Your task to perform on an android device: See recent photos Image 0: 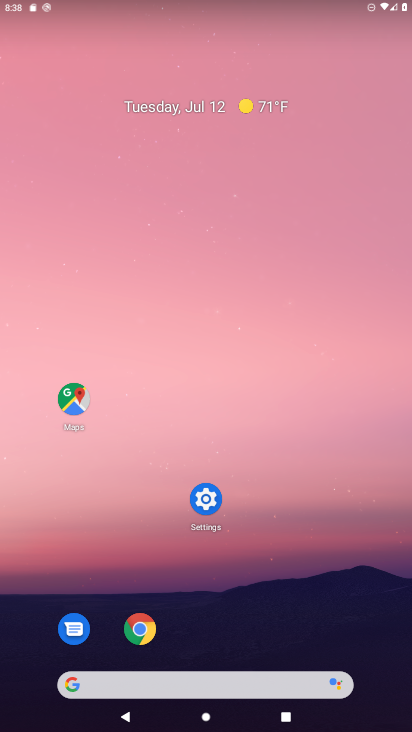
Step 0: drag from (367, 661) to (286, 89)
Your task to perform on an android device: See recent photos Image 1: 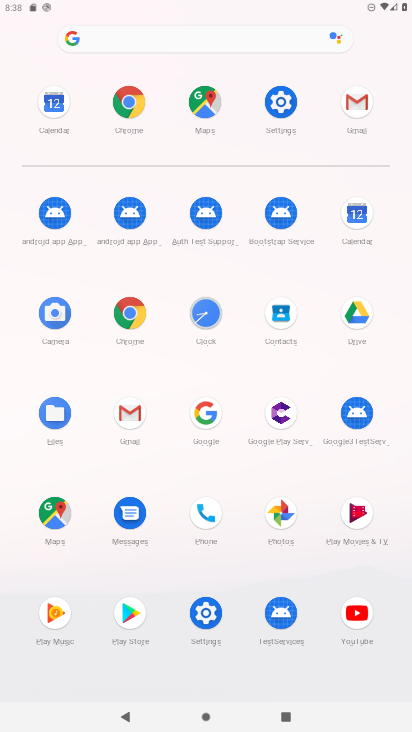
Step 1: click (276, 509)
Your task to perform on an android device: See recent photos Image 2: 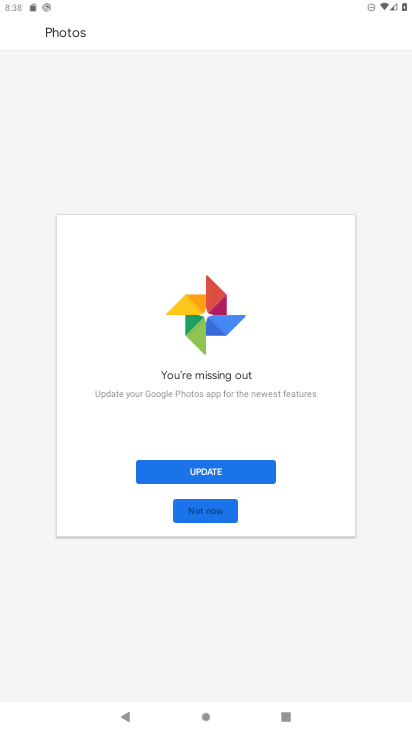
Step 2: click (252, 470)
Your task to perform on an android device: See recent photos Image 3: 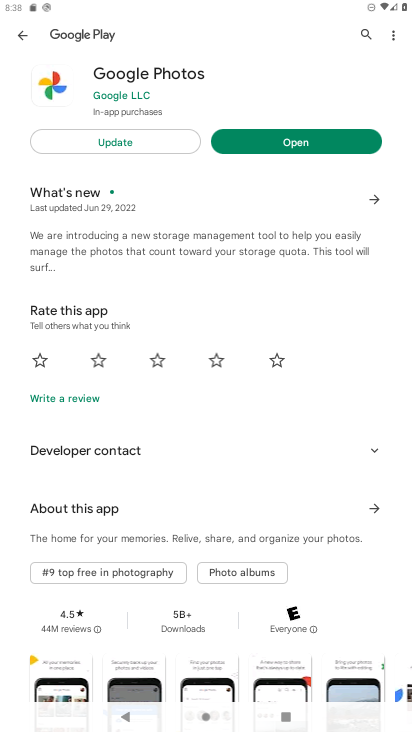
Step 3: click (140, 138)
Your task to perform on an android device: See recent photos Image 4: 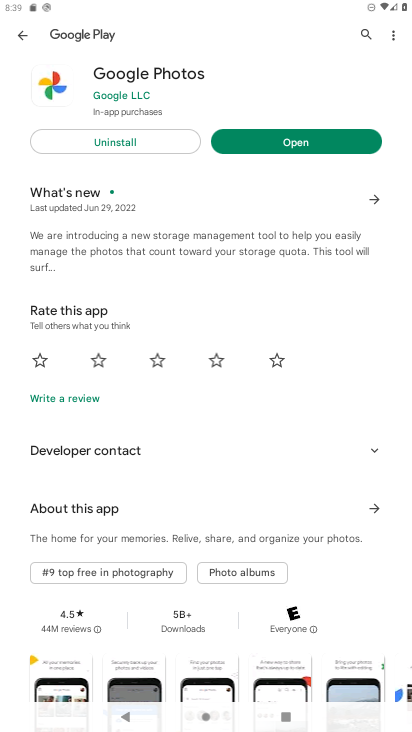
Step 4: click (285, 144)
Your task to perform on an android device: See recent photos Image 5: 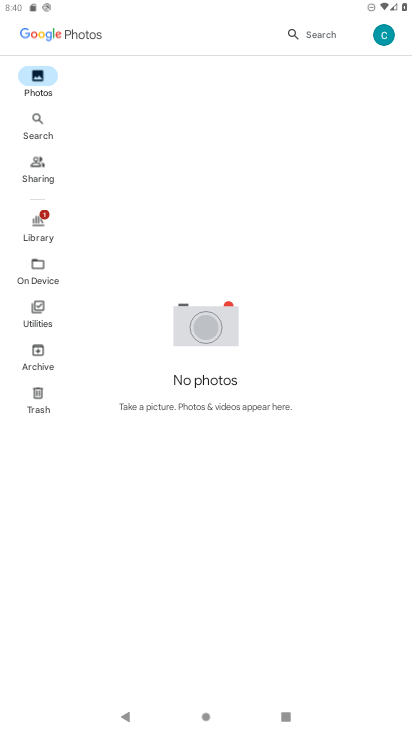
Step 5: task complete